Your task to perform on an android device: open a new tab in the chrome app Image 0: 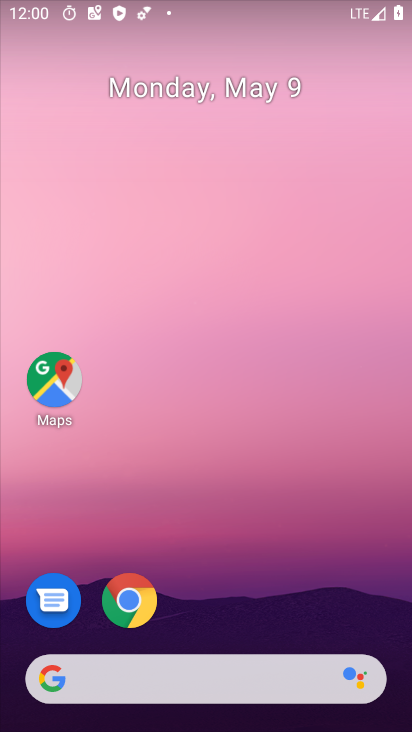
Step 0: drag from (209, 496) to (192, 201)
Your task to perform on an android device: open a new tab in the chrome app Image 1: 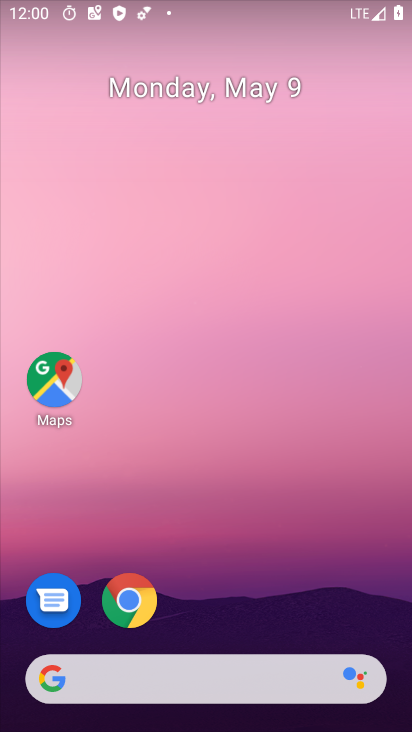
Step 1: drag from (230, 558) to (217, 137)
Your task to perform on an android device: open a new tab in the chrome app Image 2: 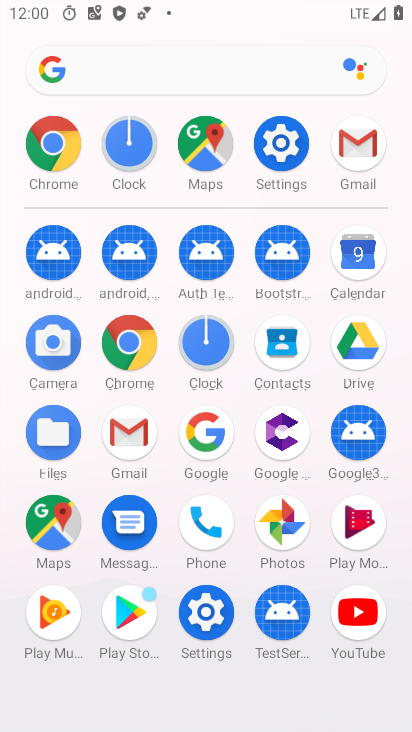
Step 2: click (130, 340)
Your task to perform on an android device: open a new tab in the chrome app Image 3: 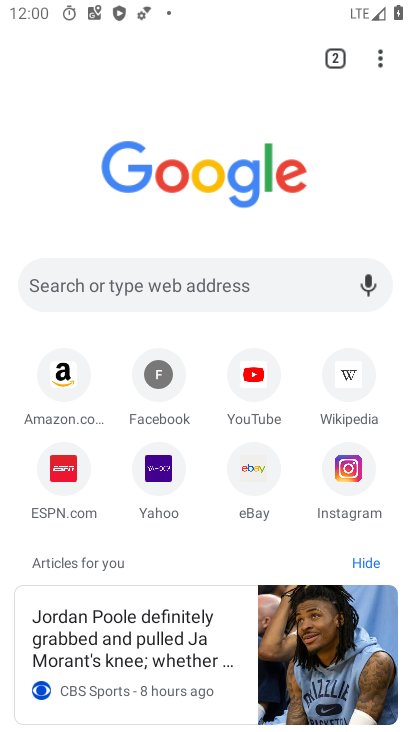
Step 3: task complete